Your task to perform on an android device: refresh tabs in the chrome app Image 0: 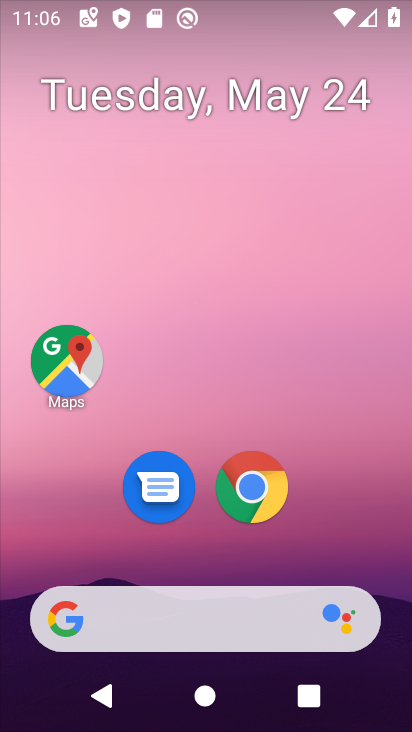
Step 0: click (250, 473)
Your task to perform on an android device: refresh tabs in the chrome app Image 1: 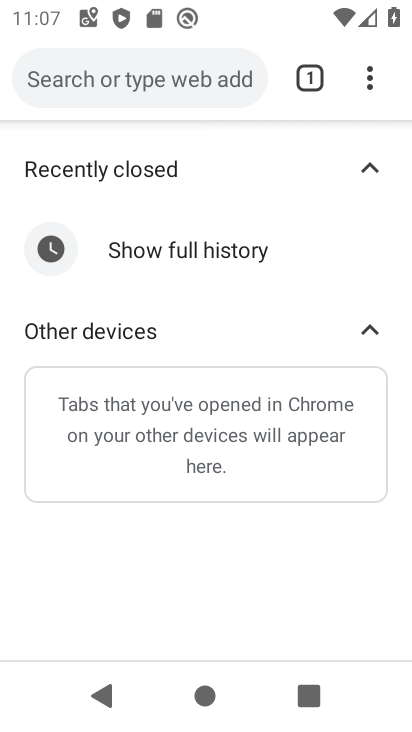
Step 1: click (361, 72)
Your task to perform on an android device: refresh tabs in the chrome app Image 2: 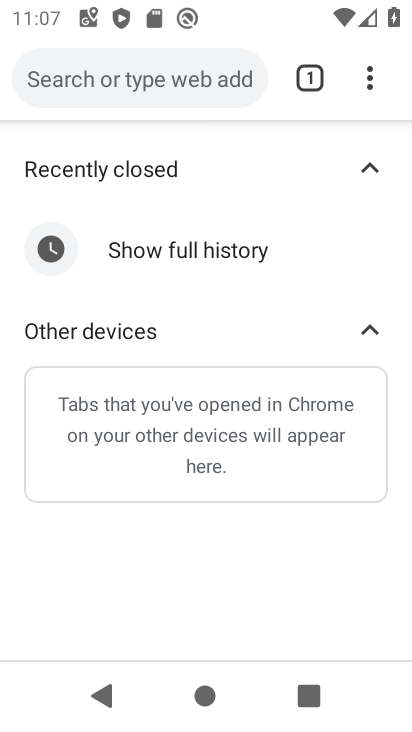
Step 2: task complete